Your task to perform on an android device: Open calendar and show me the first week of next month Image 0: 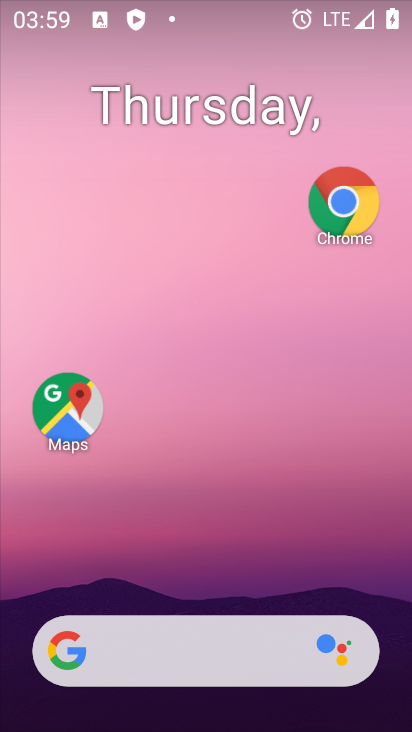
Step 0: drag from (240, 599) to (296, 131)
Your task to perform on an android device: Open calendar and show me the first week of next month Image 1: 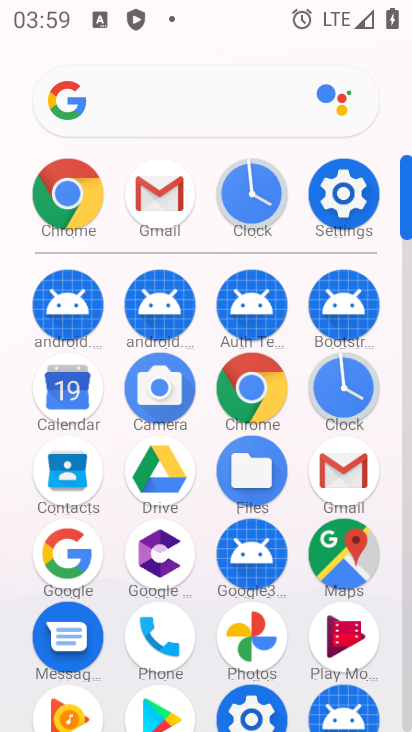
Step 1: click (70, 402)
Your task to perform on an android device: Open calendar and show me the first week of next month Image 2: 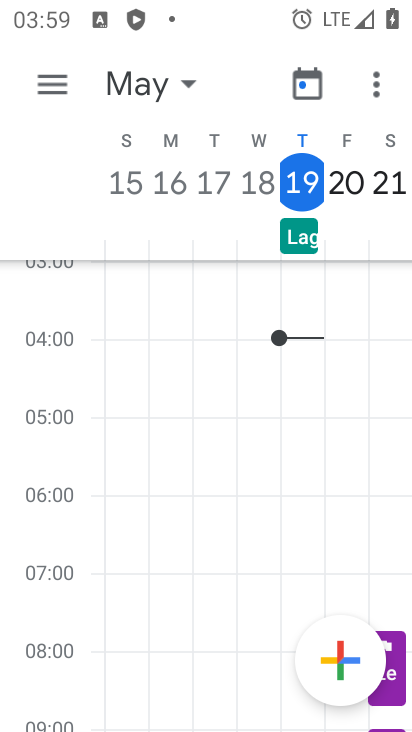
Step 2: click (190, 89)
Your task to perform on an android device: Open calendar and show me the first week of next month Image 3: 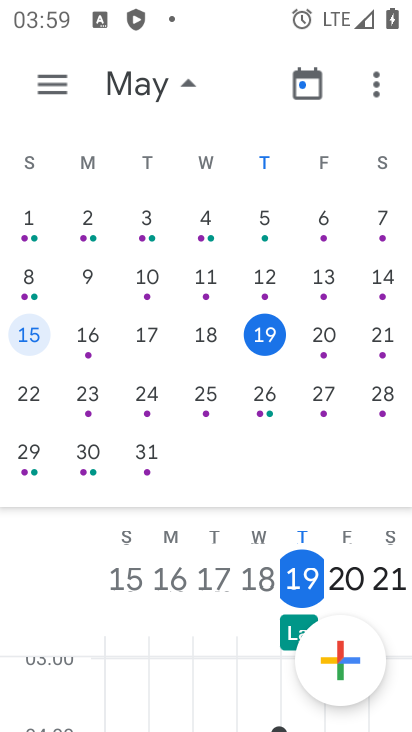
Step 3: drag from (369, 375) to (14, 437)
Your task to perform on an android device: Open calendar and show me the first week of next month Image 4: 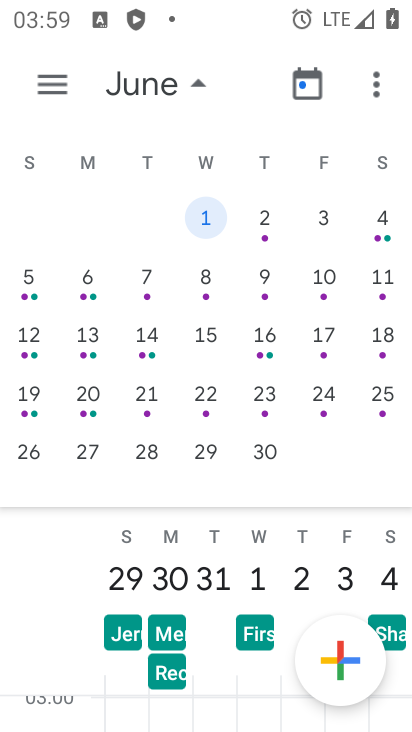
Step 4: click (334, 221)
Your task to perform on an android device: Open calendar and show me the first week of next month Image 5: 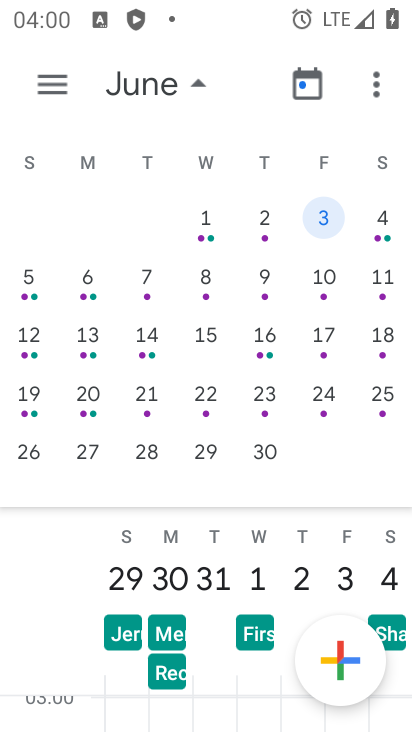
Step 5: task complete